Your task to perform on an android device: Open Youtube and go to the subscriptions tab Image 0: 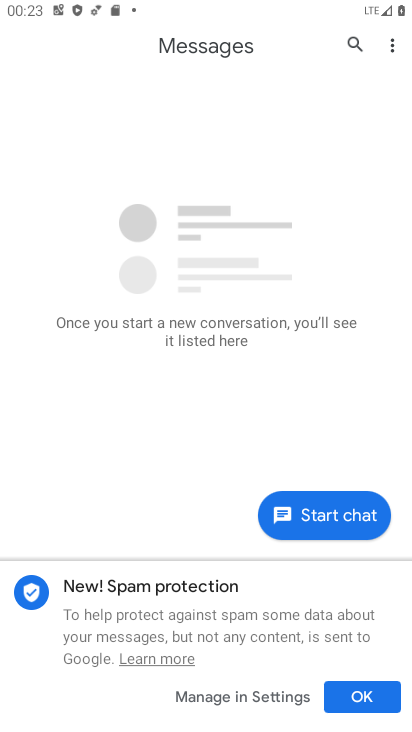
Step 0: press home button
Your task to perform on an android device: Open Youtube and go to the subscriptions tab Image 1: 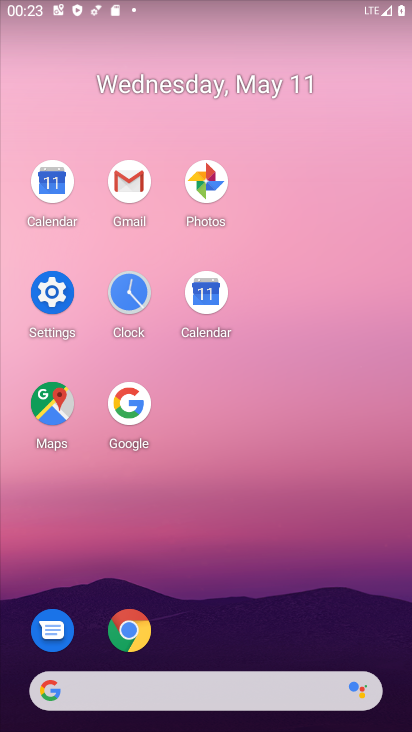
Step 1: drag from (227, 535) to (241, 150)
Your task to perform on an android device: Open Youtube and go to the subscriptions tab Image 2: 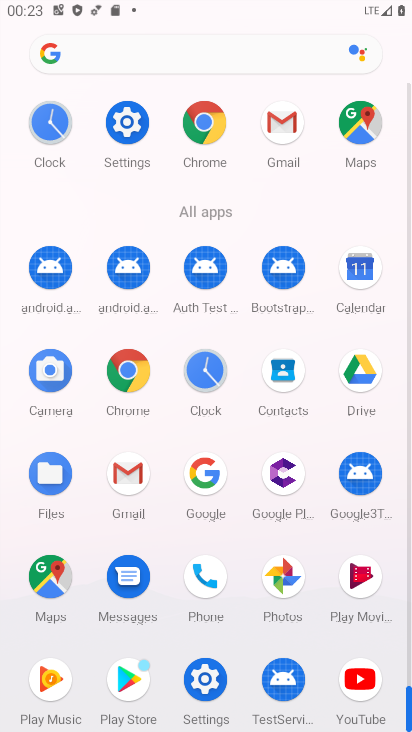
Step 2: click (357, 666)
Your task to perform on an android device: Open Youtube and go to the subscriptions tab Image 3: 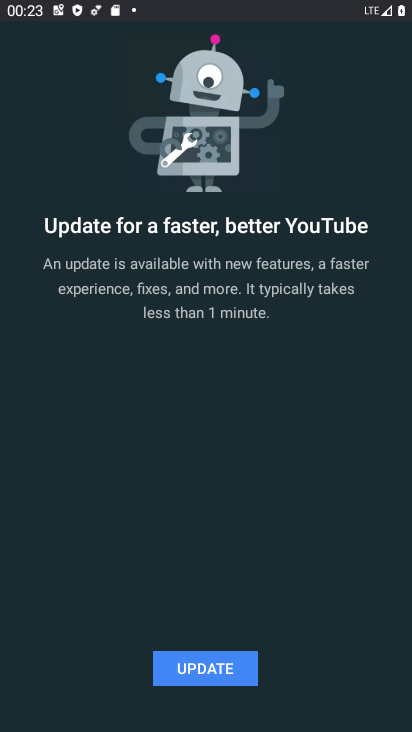
Step 3: click (243, 681)
Your task to perform on an android device: Open Youtube and go to the subscriptions tab Image 4: 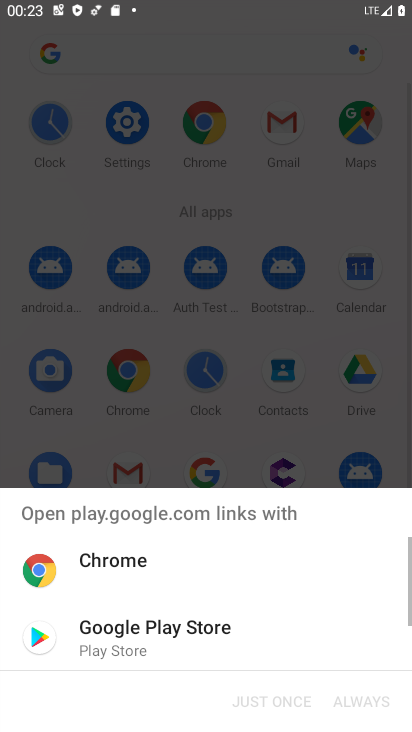
Step 4: click (158, 612)
Your task to perform on an android device: Open Youtube and go to the subscriptions tab Image 5: 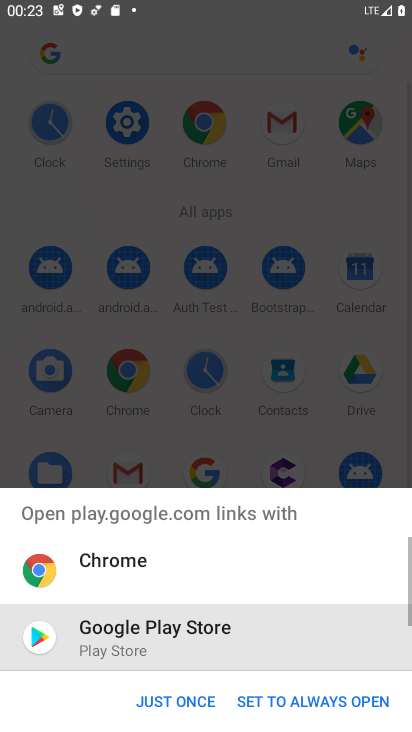
Step 5: click (158, 612)
Your task to perform on an android device: Open Youtube and go to the subscriptions tab Image 6: 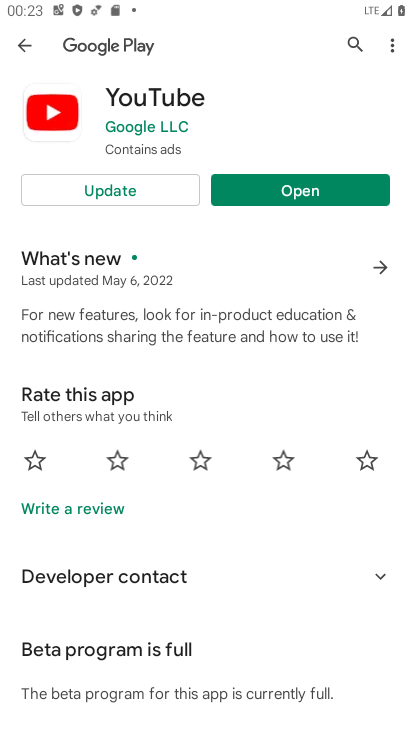
Step 6: click (131, 192)
Your task to perform on an android device: Open Youtube and go to the subscriptions tab Image 7: 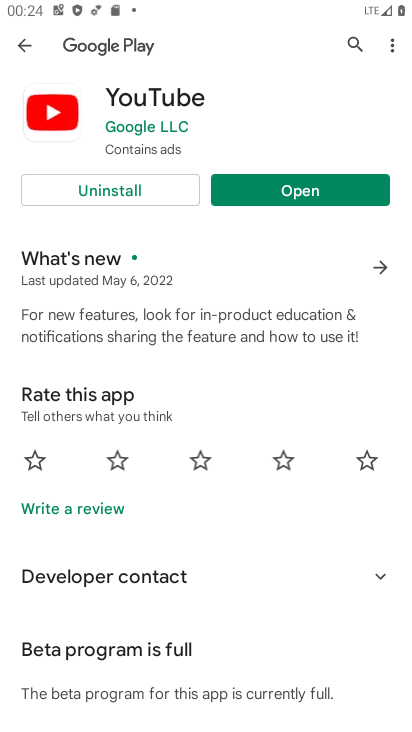
Step 7: click (310, 186)
Your task to perform on an android device: Open Youtube and go to the subscriptions tab Image 8: 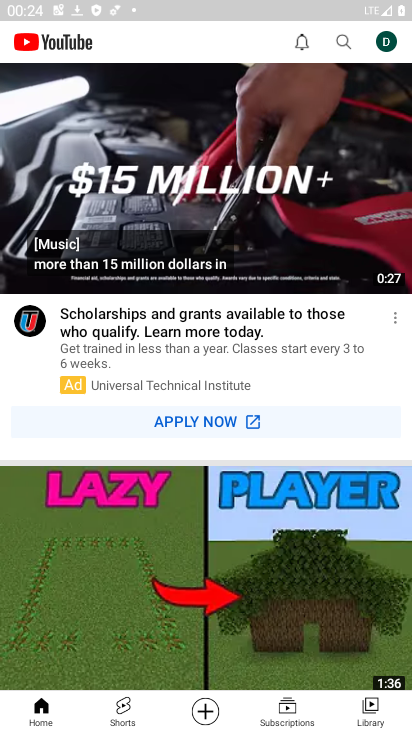
Step 8: click (287, 706)
Your task to perform on an android device: Open Youtube and go to the subscriptions tab Image 9: 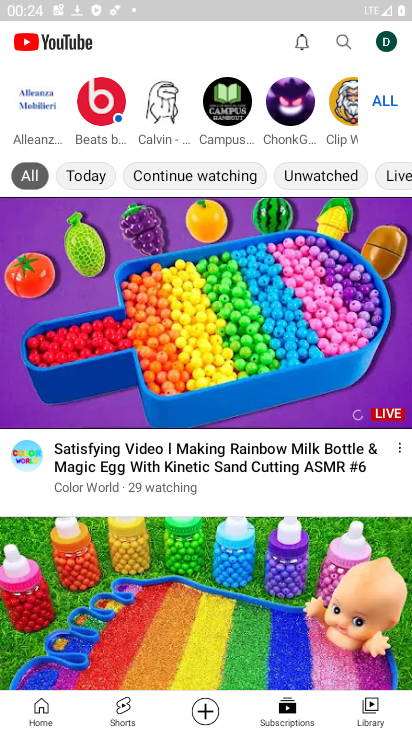
Step 9: task complete